Your task to perform on an android device: Open the calendar and show me this week's events Image 0: 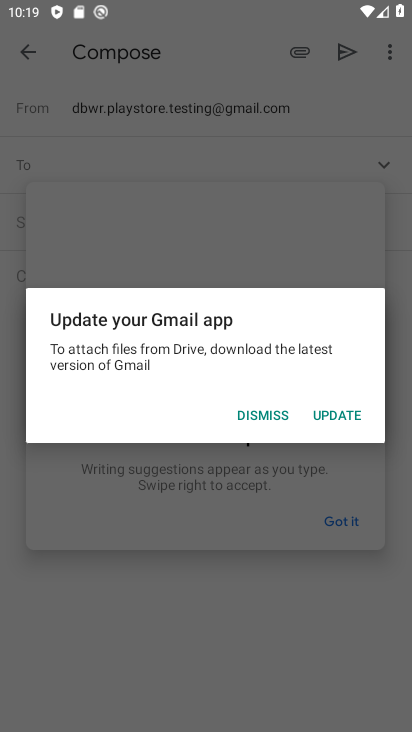
Step 0: press home button
Your task to perform on an android device: Open the calendar and show me this week's events Image 1: 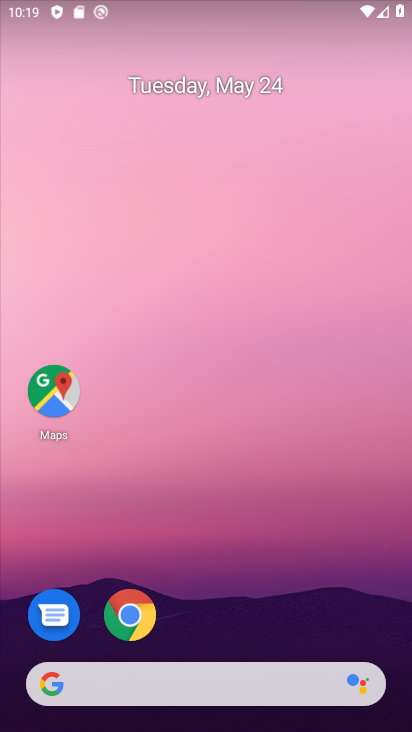
Step 1: drag from (371, 546) to (317, 179)
Your task to perform on an android device: Open the calendar and show me this week's events Image 2: 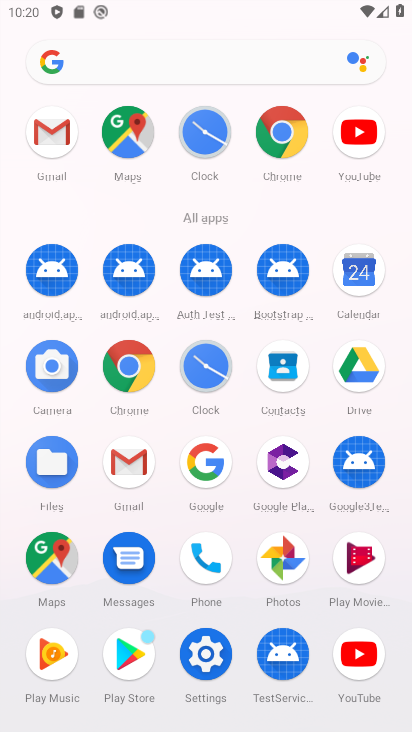
Step 2: click (364, 274)
Your task to perform on an android device: Open the calendar and show me this week's events Image 3: 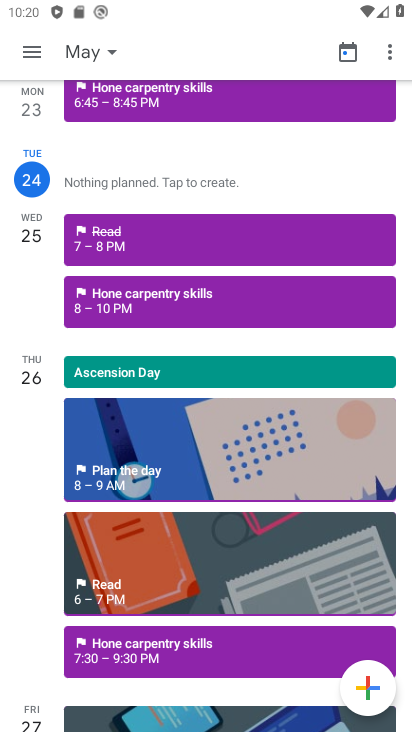
Step 3: task complete